Your task to perform on an android device: set the timer Image 0: 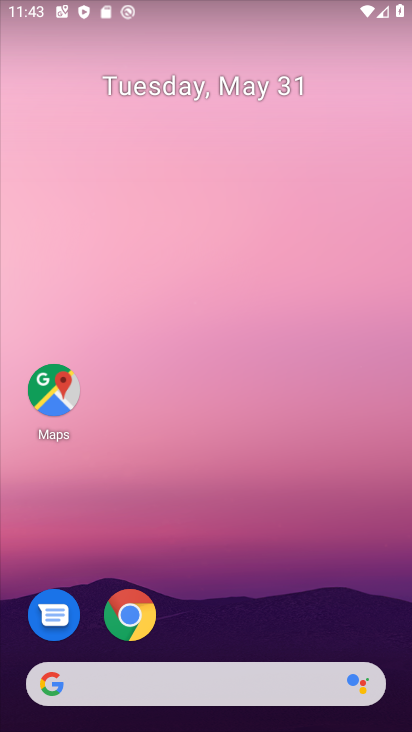
Step 0: drag from (306, 629) to (176, 76)
Your task to perform on an android device: set the timer Image 1: 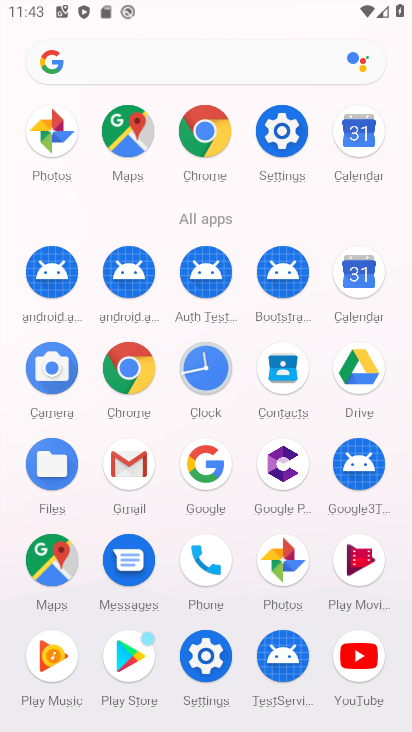
Step 1: click (259, 179)
Your task to perform on an android device: set the timer Image 2: 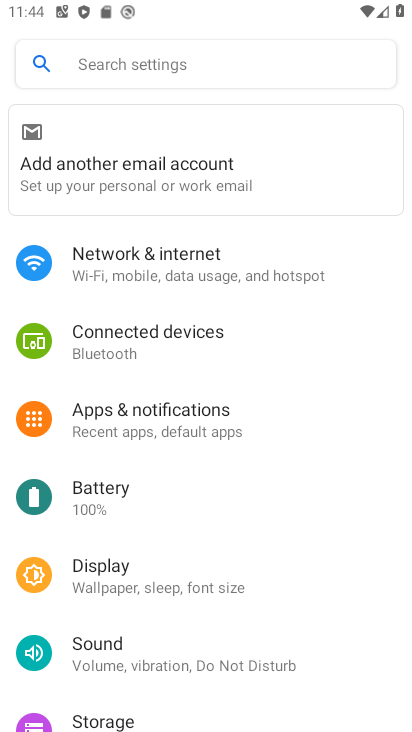
Step 2: press home button
Your task to perform on an android device: set the timer Image 3: 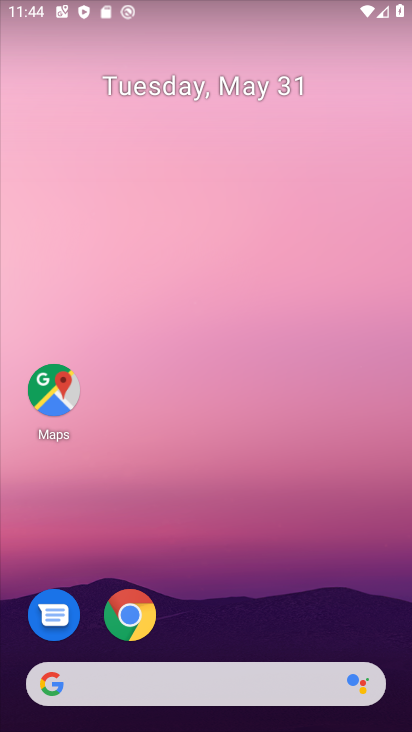
Step 3: drag from (270, 592) to (164, 28)
Your task to perform on an android device: set the timer Image 4: 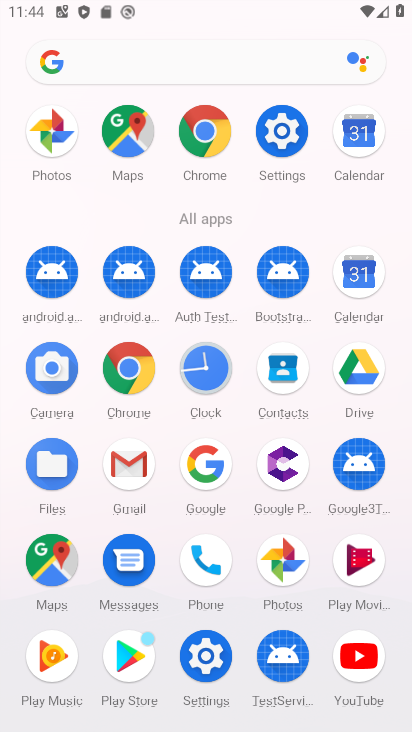
Step 4: click (204, 388)
Your task to perform on an android device: set the timer Image 5: 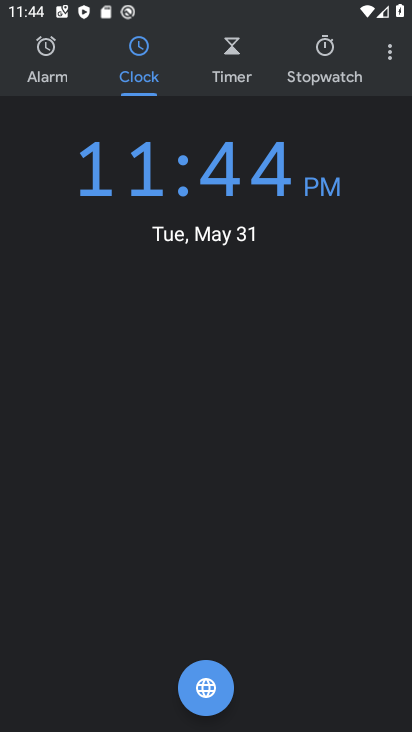
Step 5: task complete